Your task to perform on an android device: check the backup settings in the google photos Image 0: 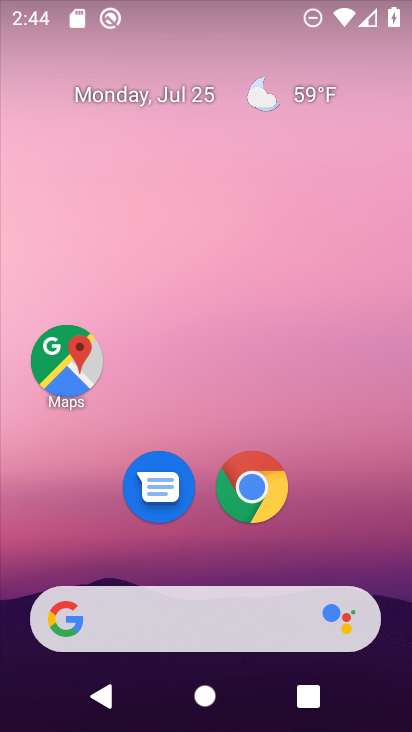
Step 0: drag from (158, 567) to (293, 5)
Your task to perform on an android device: check the backup settings in the google photos Image 1: 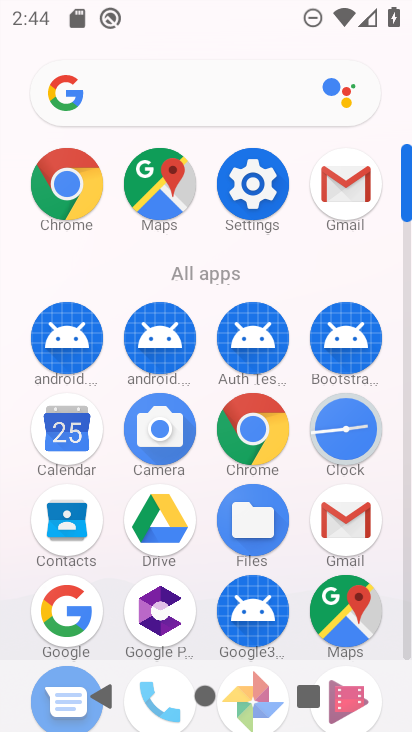
Step 1: drag from (245, 603) to (305, 119)
Your task to perform on an android device: check the backup settings in the google photos Image 2: 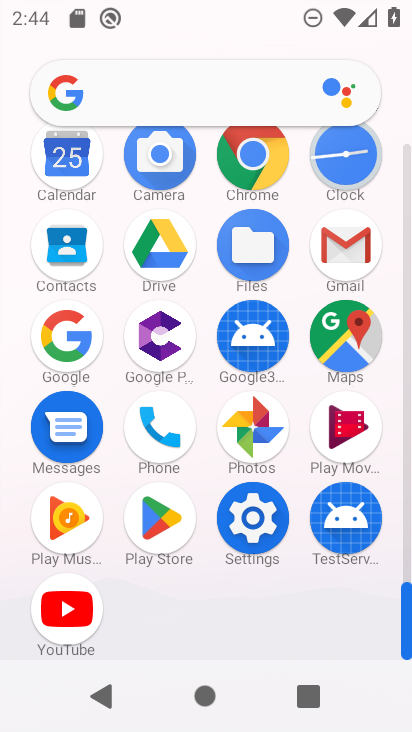
Step 2: click (266, 431)
Your task to perform on an android device: check the backup settings in the google photos Image 3: 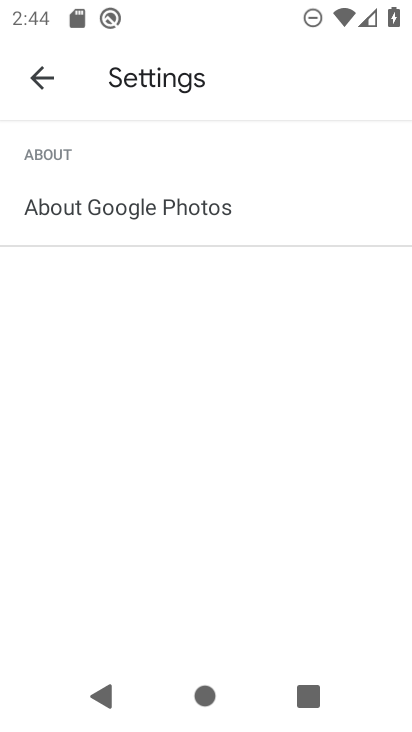
Step 3: click (51, 68)
Your task to perform on an android device: check the backup settings in the google photos Image 4: 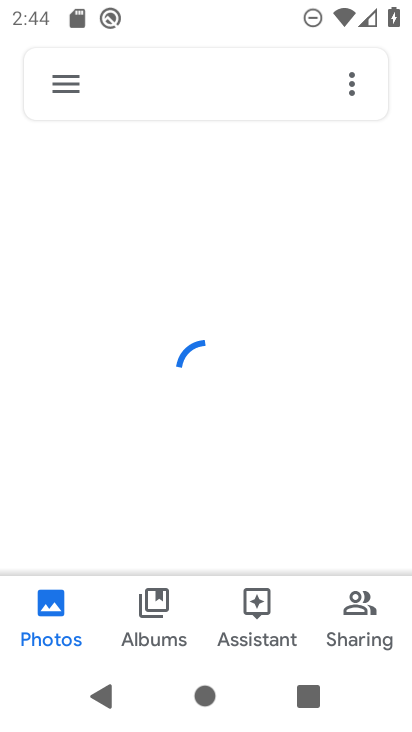
Step 4: click (68, 68)
Your task to perform on an android device: check the backup settings in the google photos Image 5: 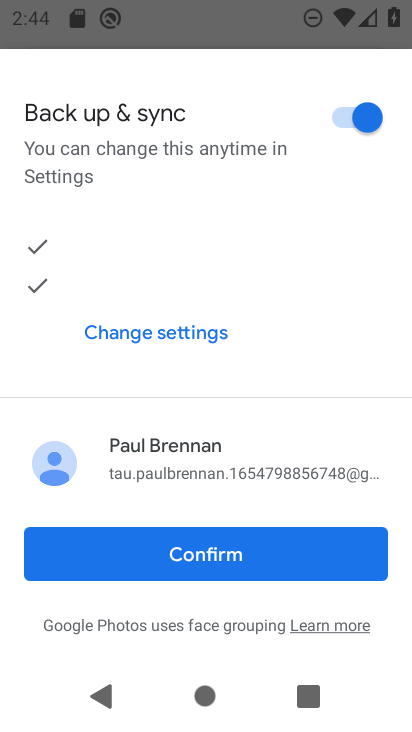
Step 5: click (196, 553)
Your task to perform on an android device: check the backup settings in the google photos Image 6: 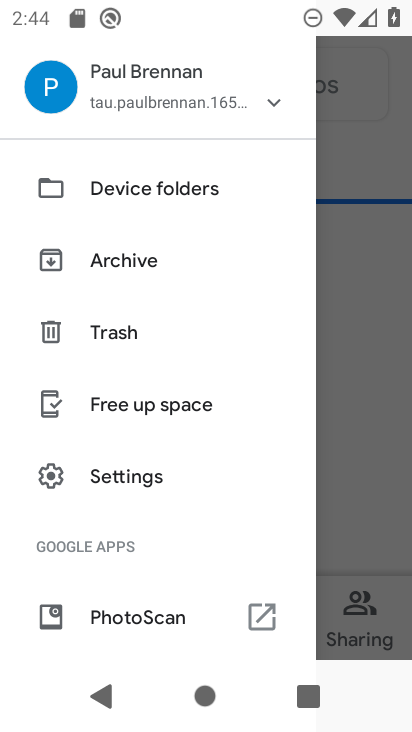
Step 6: click (123, 473)
Your task to perform on an android device: check the backup settings in the google photos Image 7: 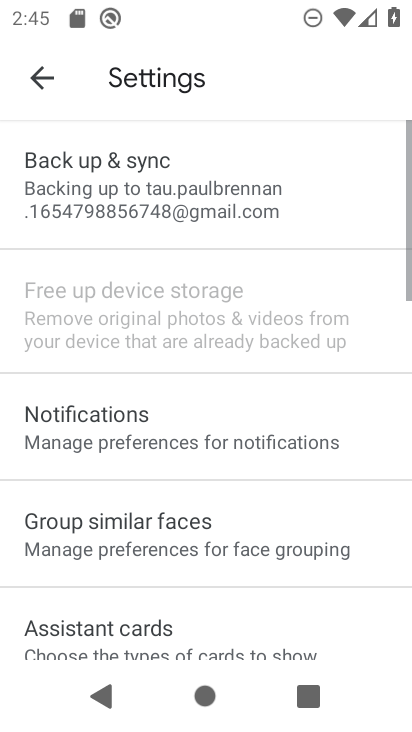
Step 7: click (196, 200)
Your task to perform on an android device: check the backup settings in the google photos Image 8: 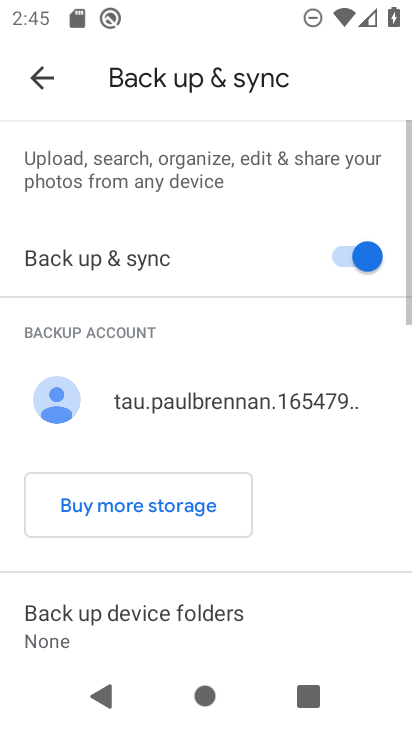
Step 8: task complete